Your task to perform on an android device: Go to CNN.com Image 0: 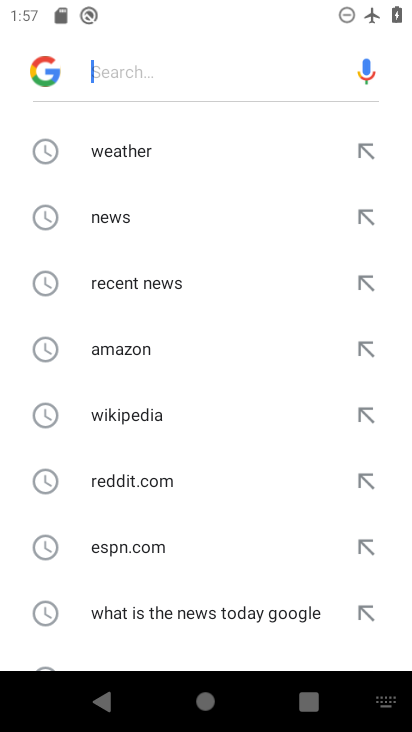
Step 0: type "cnn.com"
Your task to perform on an android device: Go to CNN.com Image 1: 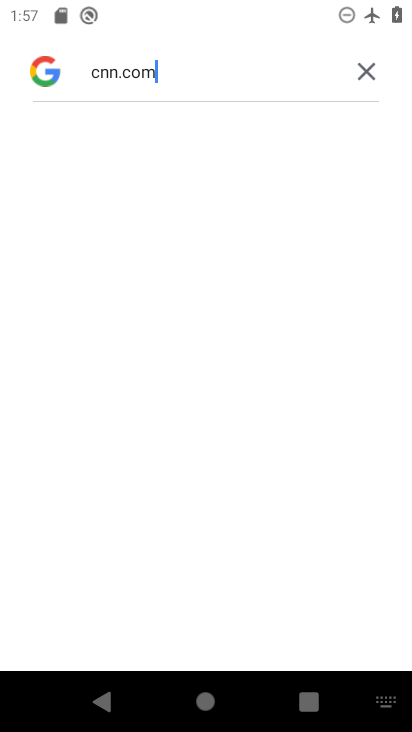
Step 1: task complete